Your task to perform on an android device: remove spam from my inbox in the gmail app Image 0: 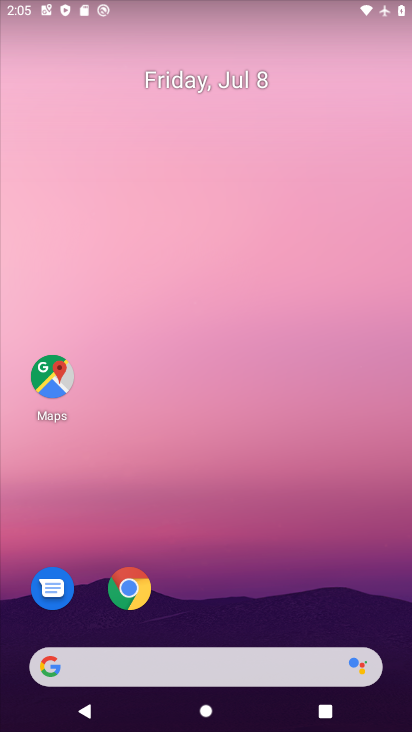
Step 0: drag from (230, 625) to (211, 59)
Your task to perform on an android device: remove spam from my inbox in the gmail app Image 1: 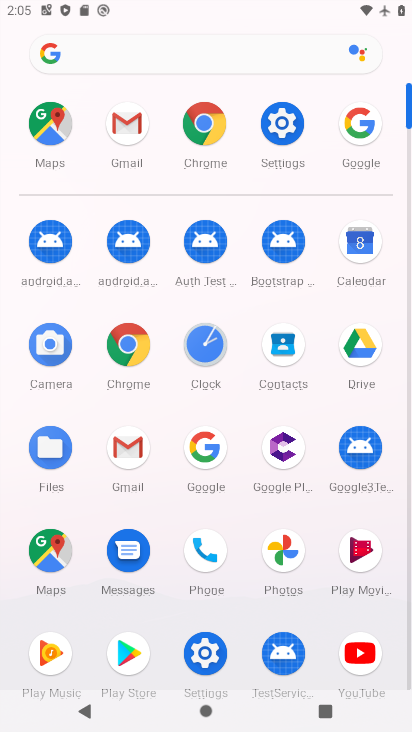
Step 1: click (119, 115)
Your task to perform on an android device: remove spam from my inbox in the gmail app Image 2: 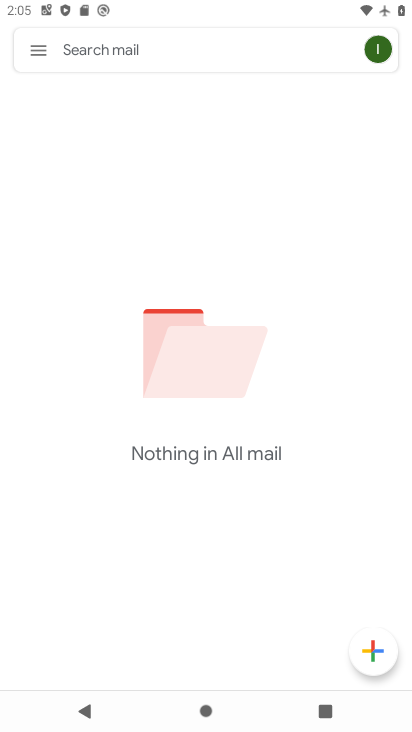
Step 2: click (36, 61)
Your task to perform on an android device: remove spam from my inbox in the gmail app Image 3: 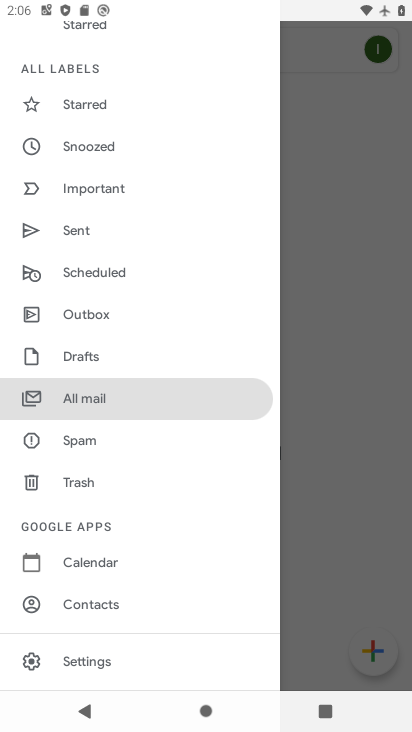
Step 3: click (79, 441)
Your task to perform on an android device: remove spam from my inbox in the gmail app Image 4: 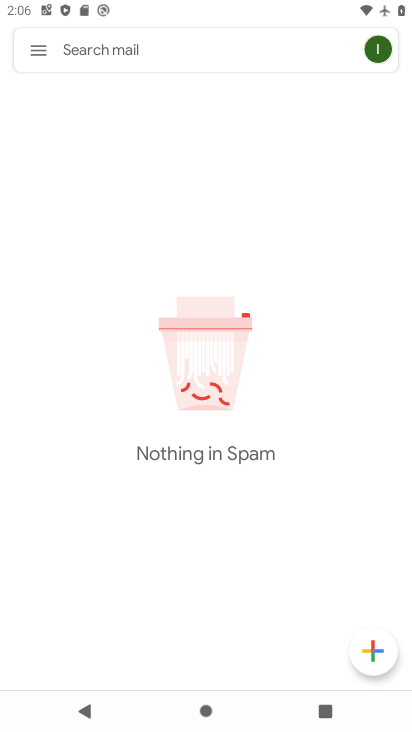
Step 4: task complete